Your task to perform on an android device: open app "Adobe Acrobat Reader" Image 0: 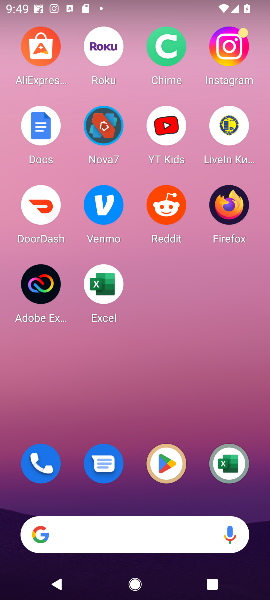
Step 0: click (164, 461)
Your task to perform on an android device: open app "Adobe Acrobat Reader" Image 1: 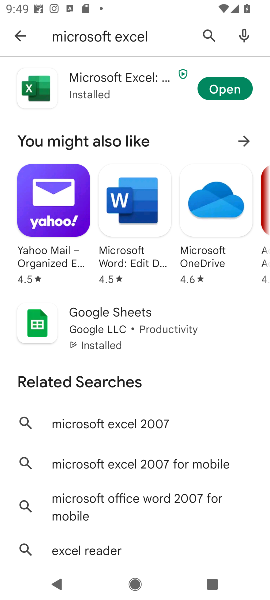
Step 1: click (19, 38)
Your task to perform on an android device: open app "Adobe Acrobat Reader" Image 2: 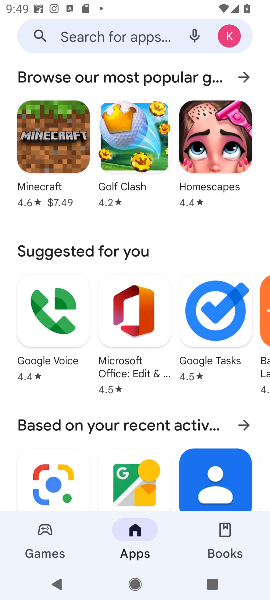
Step 2: click (91, 25)
Your task to perform on an android device: open app "Adobe Acrobat Reader" Image 3: 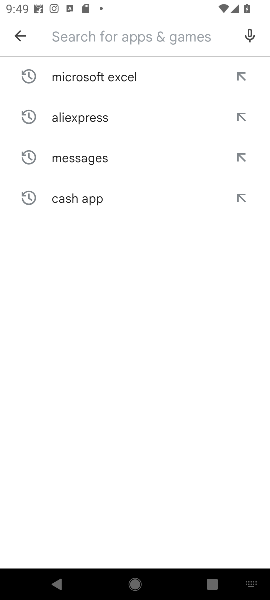
Step 3: type "Adobe Acrobat Reader"
Your task to perform on an android device: open app "Adobe Acrobat Reader" Image 4: 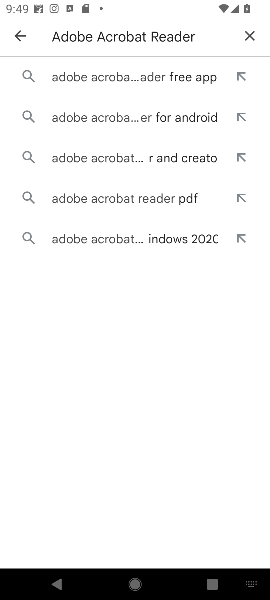
Step 4: click (160, 77)
Your task to perform on an android device: open app "Adobe Acrobat Reader" Image 5: 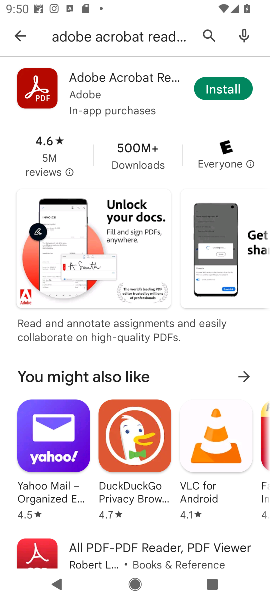
Step 5: click (222, 89)
Your task to perform on an android device: open app "Adobe Acrobat Reader" Image 6: 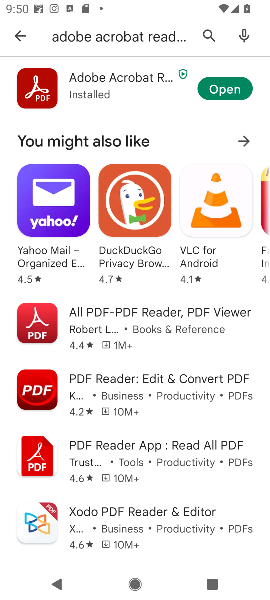
Step 6: click (228, 89)
Your task to perform on an android device: open app "Adobe Acrobat Reader" Image 7: 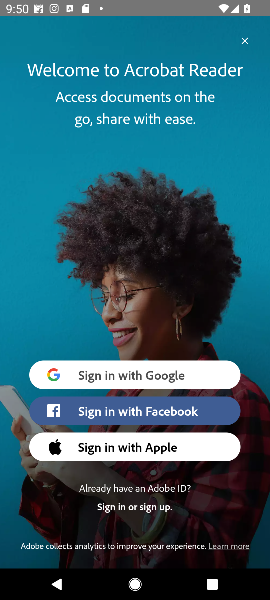
Step 7: task complete